Your task to perform on an android device: toggle wifi Image 0: 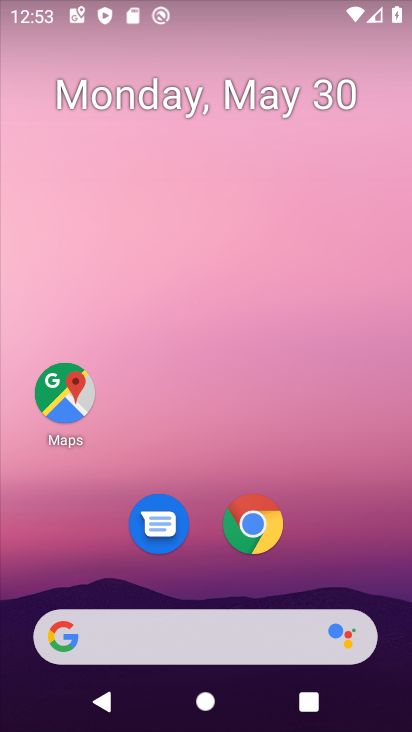
Step 0: drag from (214, 435) to (274, 0)
Your task to perform on an android device: toggle wifi Image 1: 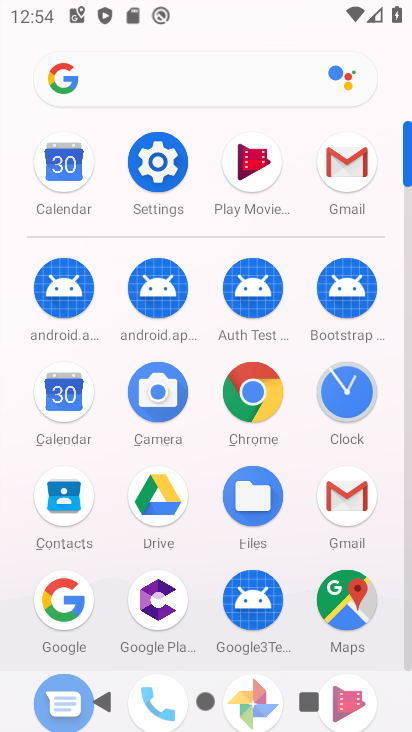
Step 1: click (166, 162)
Your task to perform on an android device: toggle wifi Image 2: 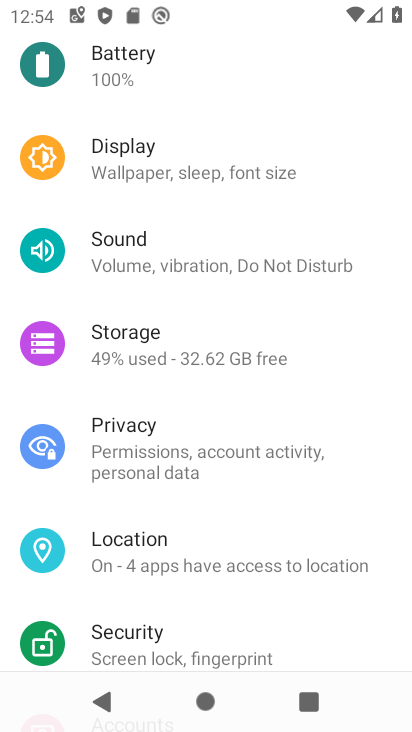
Step 2: drag from (199, 196) to (241, 687)
Your task to perform on an android device: toggle wifi Image 3: 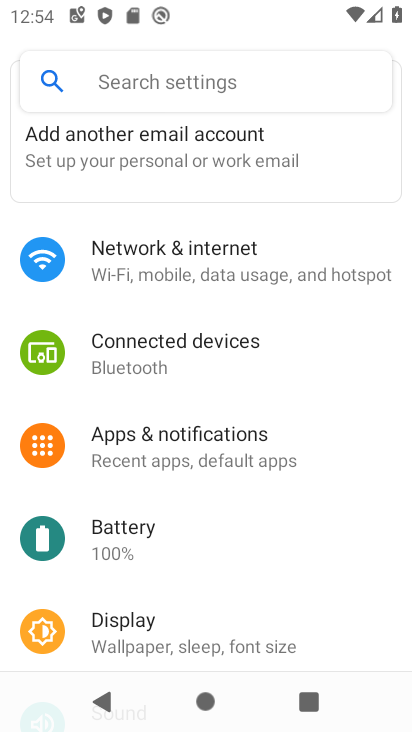
Step 3: click (214, 260)
Your task to perform on an android device: toggle wifi Image 4: 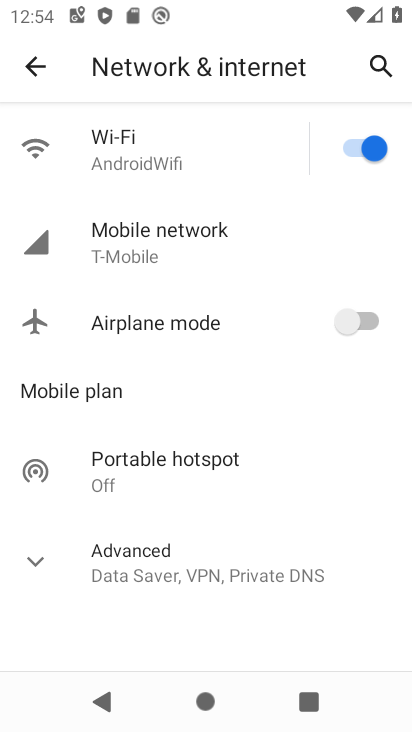
Step 4: click (350, 148)
Your task to perform on an android device: toggle wifi Image 5: 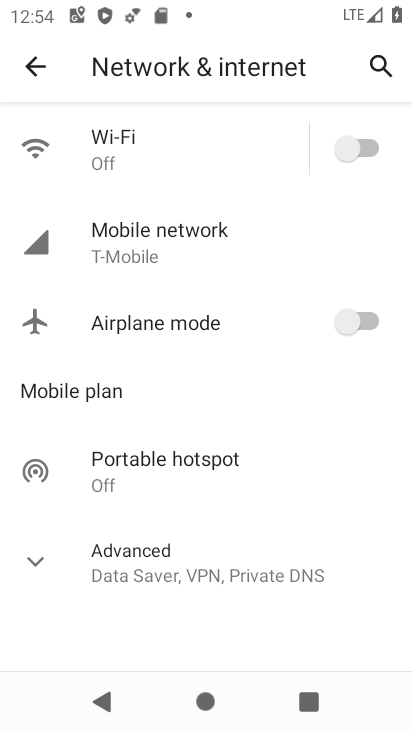
Step 5: task complete